Your task to perform on an android device: toggle translation in the chrome app Image 0: 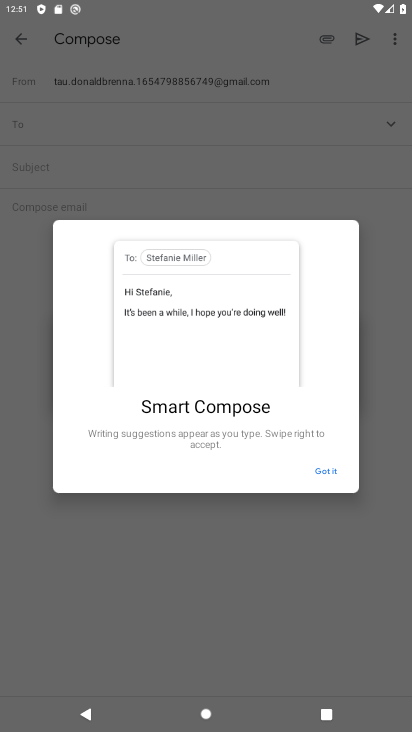
Step 0: press home button
Your task to perform on an android device: toggle translation in the chrome app Image 1: 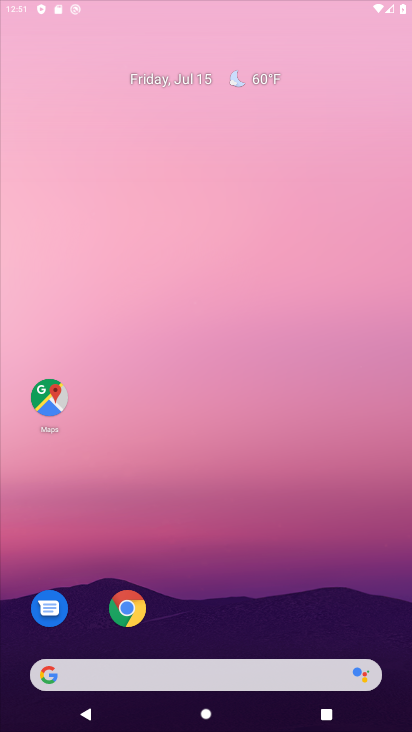
Step 1: drag from (257, 637) to (302, 50)
Your task to perform on an android device: toggle translation in the chrome app Image 2: 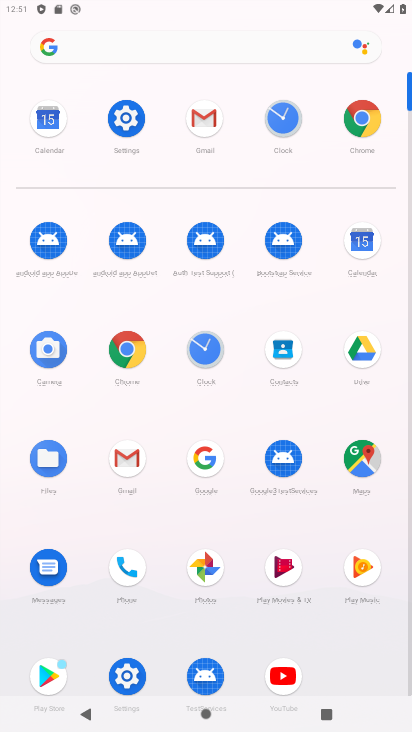
Step 2: click (348, 116)
Your task to perform on an android device: toggle translation in the chrome app Image 3: 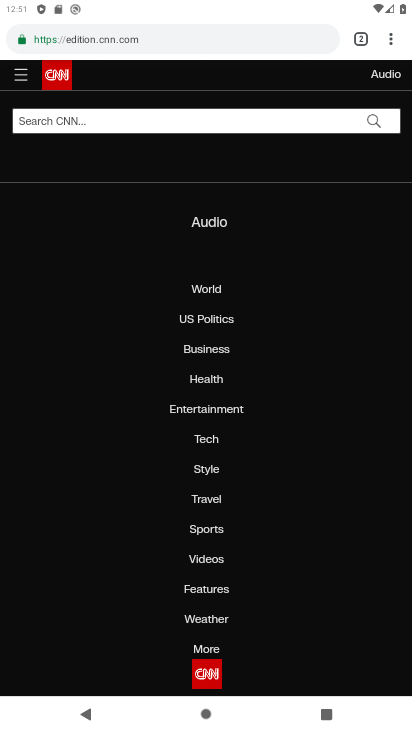
Step 3: drag from (402, 34) to (263, 472)
Your task to perform on an android device: toggle translation in the chrome app Image 4: 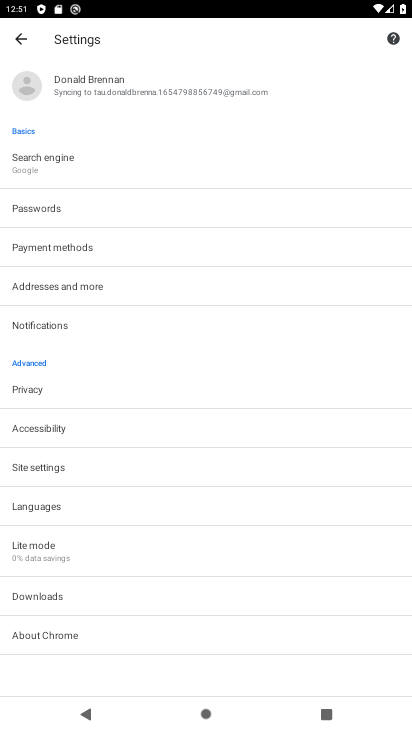
Step 4: click (33, 515)
Your task to perform on an android device: toggle translation in the chrome app Image 5: 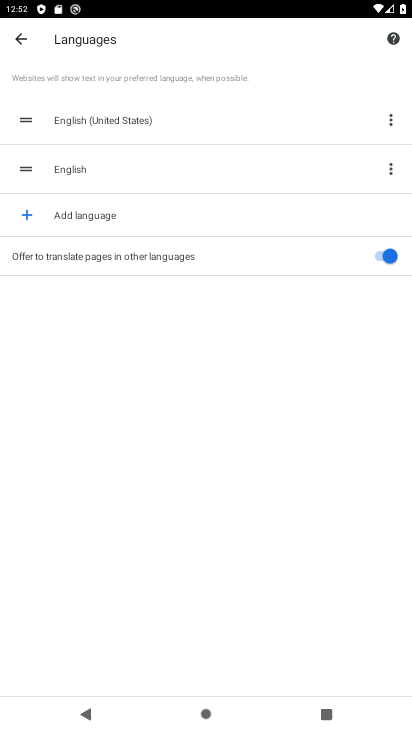
Step 5: task complete